Your task to perform on an android device: Open notification settings Image 0: 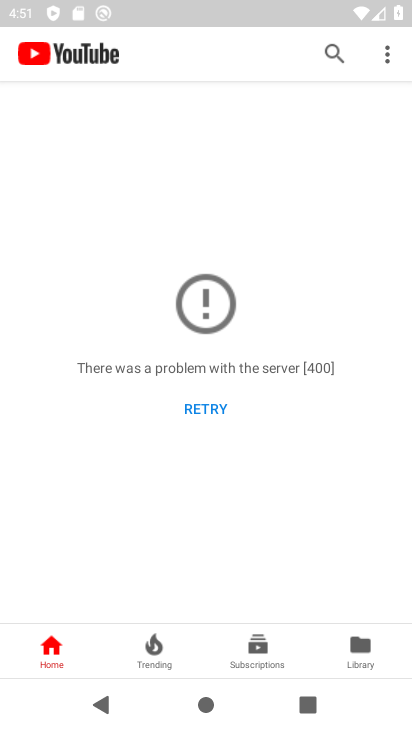
Step 0: press home button
Your task to perform on an android device: Open notification settings Image 1: 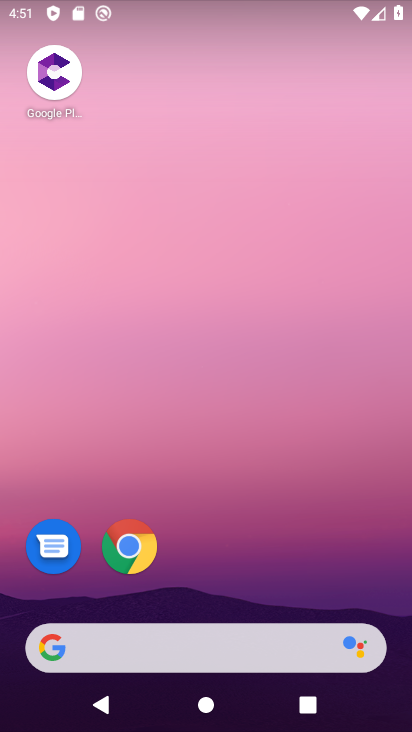
Step 1: drag from (218, 561) to (208, 12)
Your task to perform on an android device: Open notification settings Image 2: 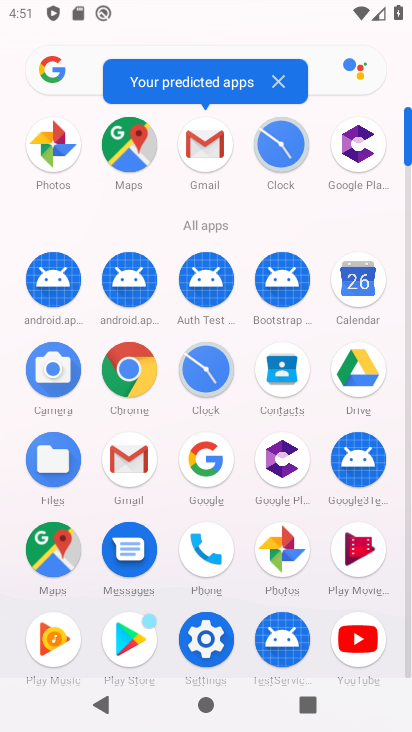
Step 2: click (213, 628)
Your task to perform on an android device: Open notification settings Image 3: 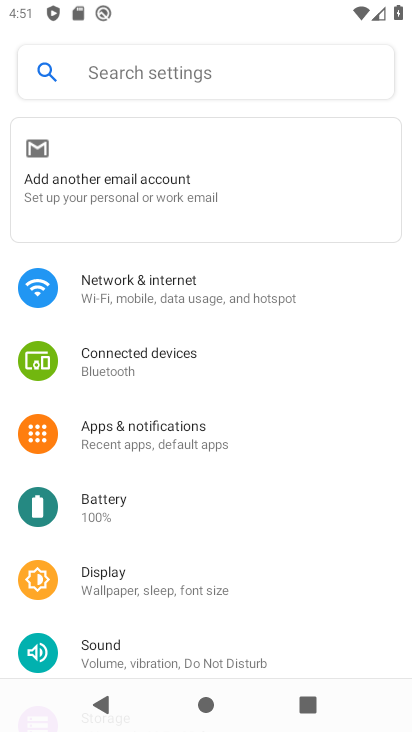
Step 3: click (171, 432)
Your task to perform on an android device: Open notification settings Image 4: 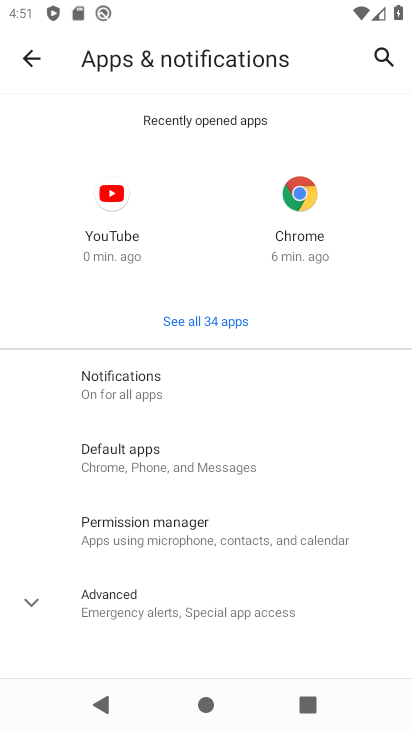
Step 4: click (199, 397)
Your task to perform on an android device: Open notification settings Image 5: 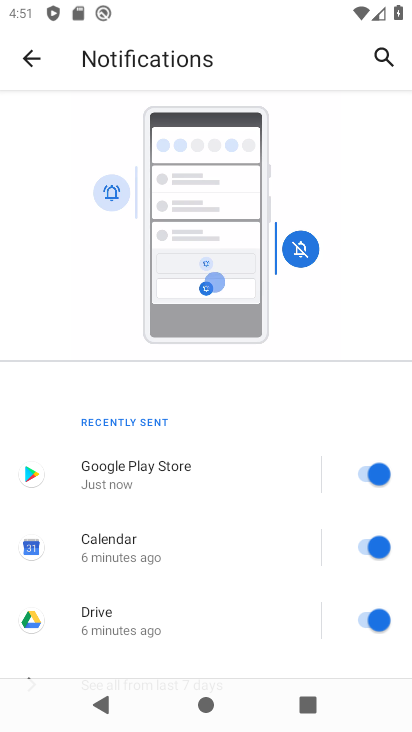
Step 5: task complete